Your task to perform on an android device: toggle sleep mode Image 0: 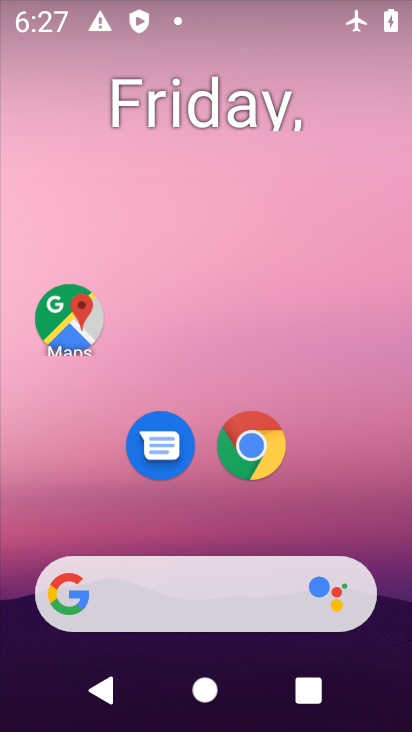
Step 0: drag from (185, 497) to (173, 171)
Your task to perform on an android device: toggle sleep mode Image 1: 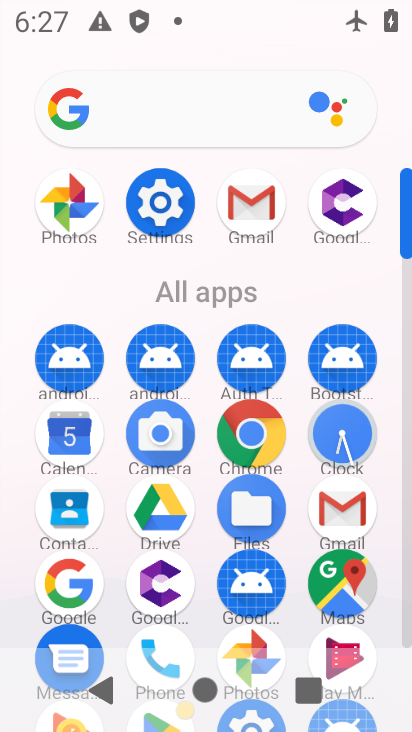
Step 1: click (156, 205)
Your task to perform on an android device: toggle sleep mode Image 2: 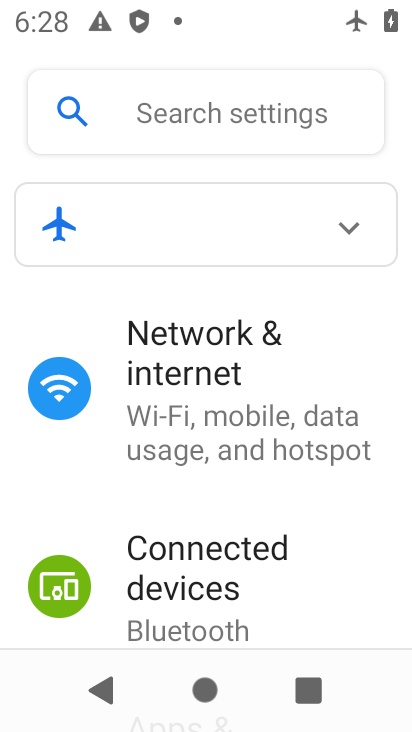
Step 2: drag from (152, 459) to (198, 109)
Your task to perform on an android device: toggle sleep mode Image 3: 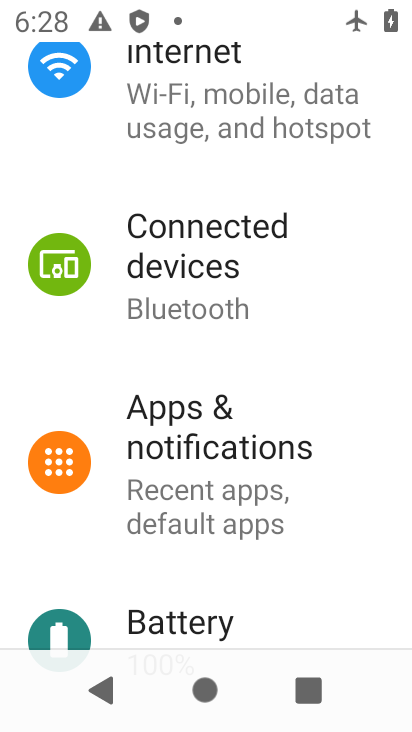
Step 3: drag from (200, 517) to (206, 269)
Your task to perform on an android device: toggle sleep mode Image 4: 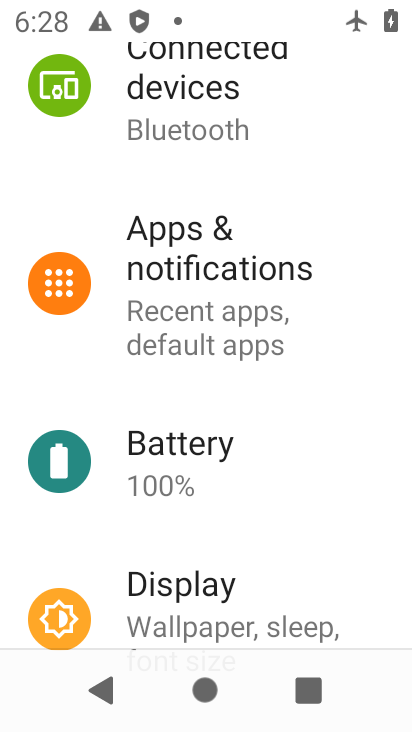
Step 4: drag from (221, 226) to (241, 507)
Your task to perform on an android device: toggle sleep mode Image 5: 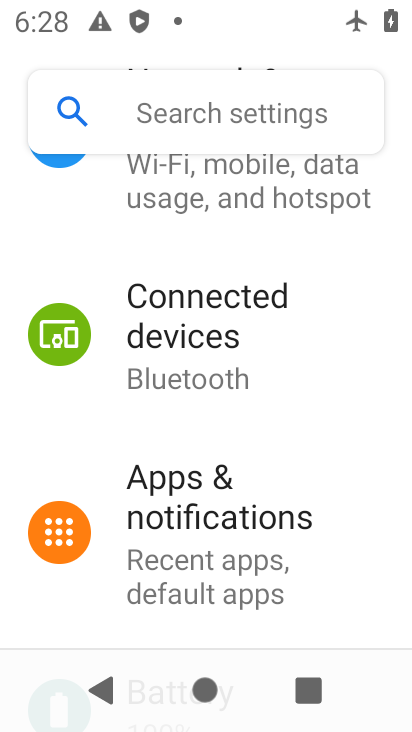
Step 5: drag from (216, 284) to (367, 2)
Your task to perform on an android device: toggle sleep mode Image 6: 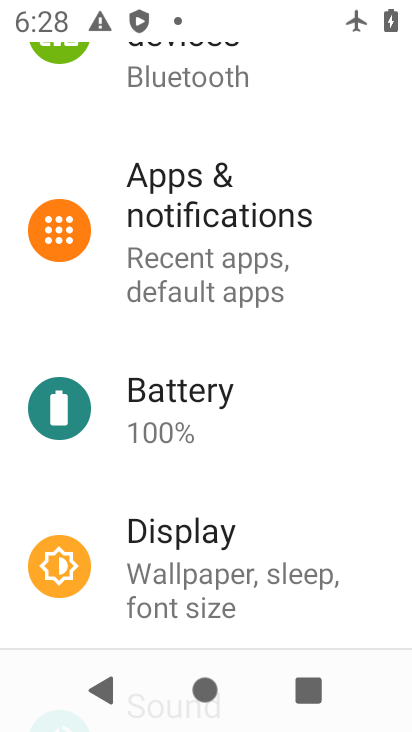
Step 6: click (152, 537)
Your task to perform on an android device: toggle sleep mode Image 7: 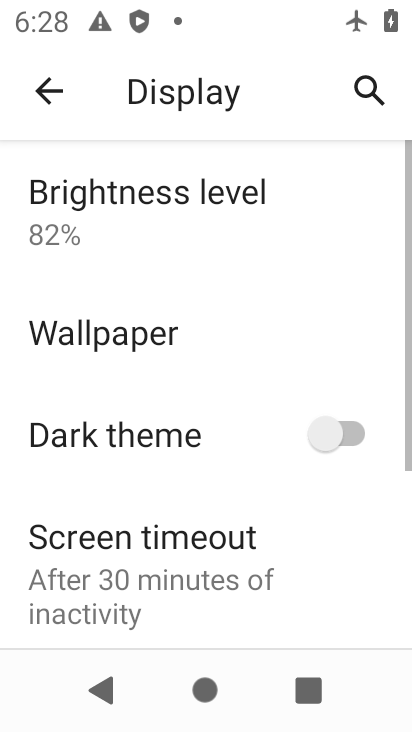
Step 7: drag from (143, 400) to (180, 148)
Your task to perform on an android device: toggle sleep mode Image 8: 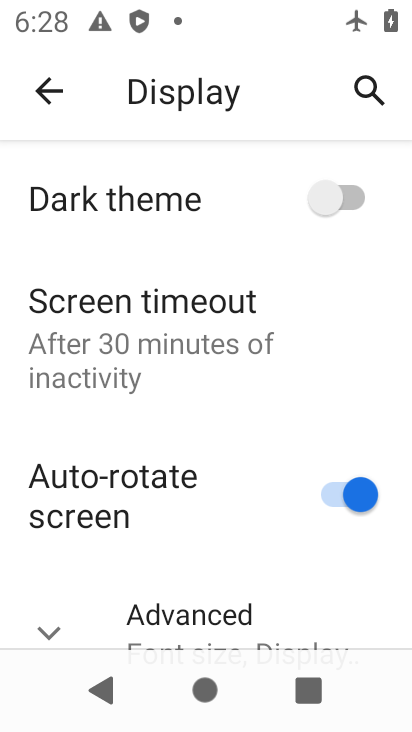
Step 8: drag from (183, 470) to (218, 249)
Your task to perform on an android device: toggle sleep mode Image 9: 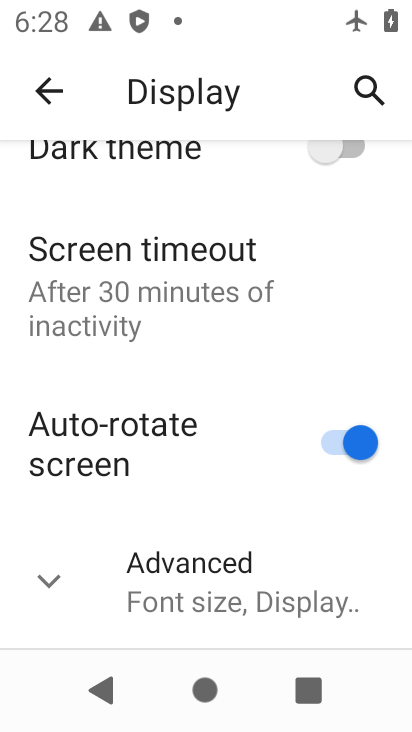
Step 9: click (111, 290)
Your task to perform on an android device: toggle sleep mode Image 10: 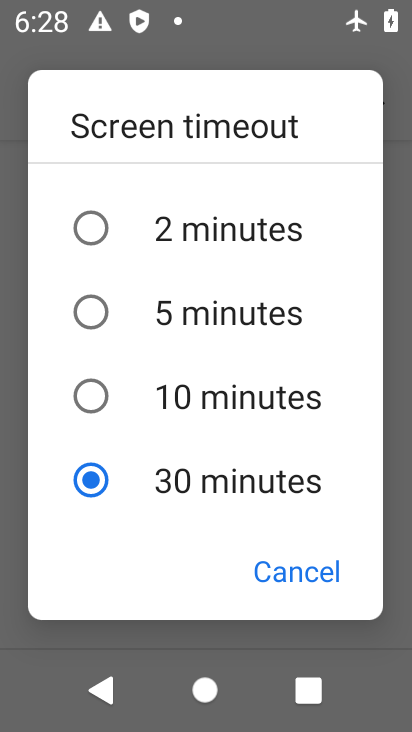
Step 10: click (147, 223)
Your task to perform on an android device: toggle sleep mode Image 11: 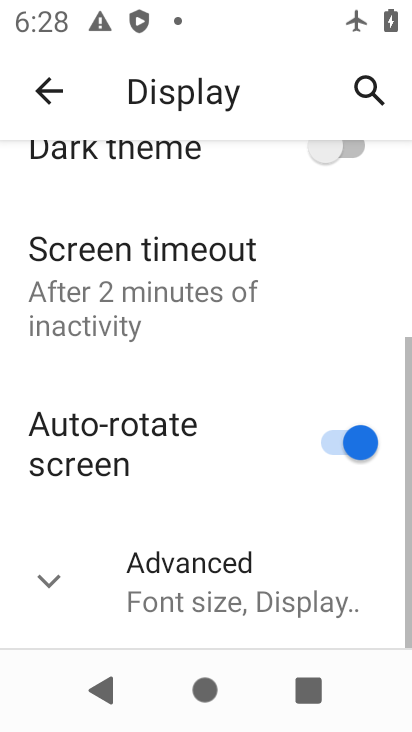
Step 11: task complete